Your task to perform on an android device: check out phone information Image 0: 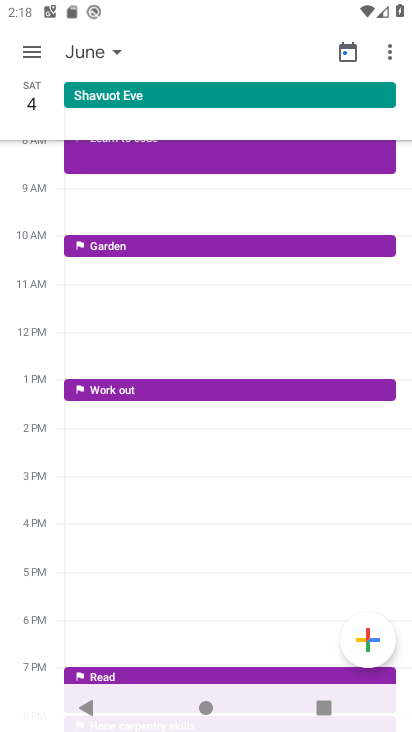
Step 0: press home button
Your task to perform on an android device: check out phone information Image 1: 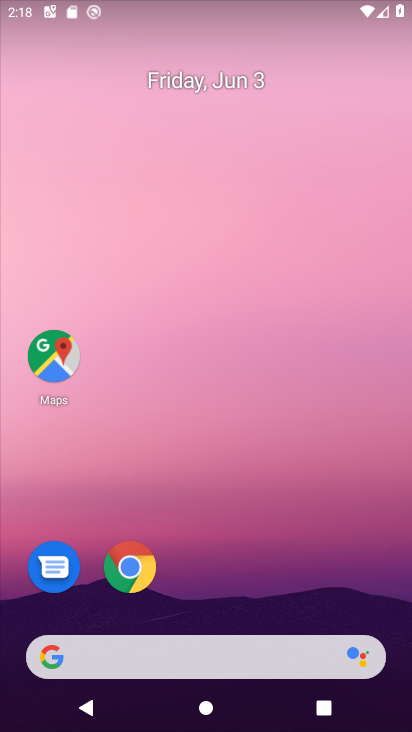
Step 1: drag from (206, 538) to (221, 222)
Your task to perform on an android device: check out phone information Image 2: 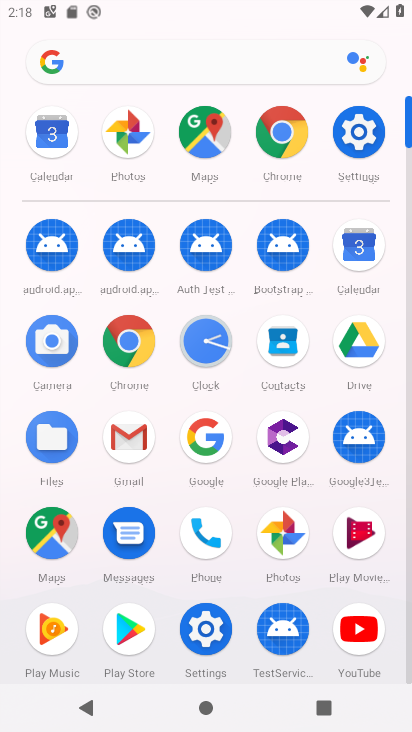
Step 2: click (349, 128)
Your task to perform on an android device: check out phone information Image 3: 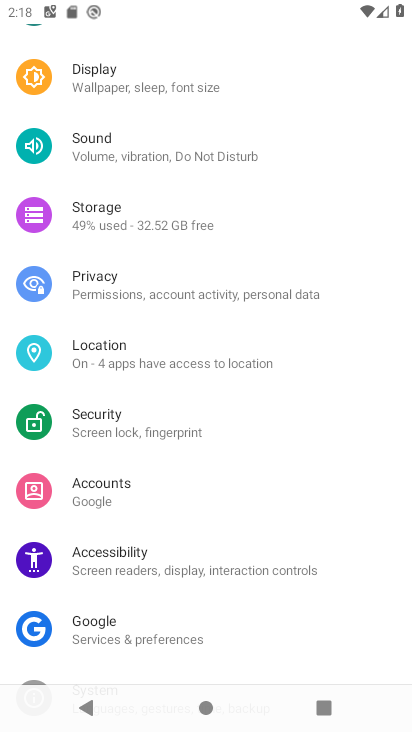
Step 3: drag from (181, 609) to (198, 232)
Your task to perform on an android device: check out phone information Image 4: 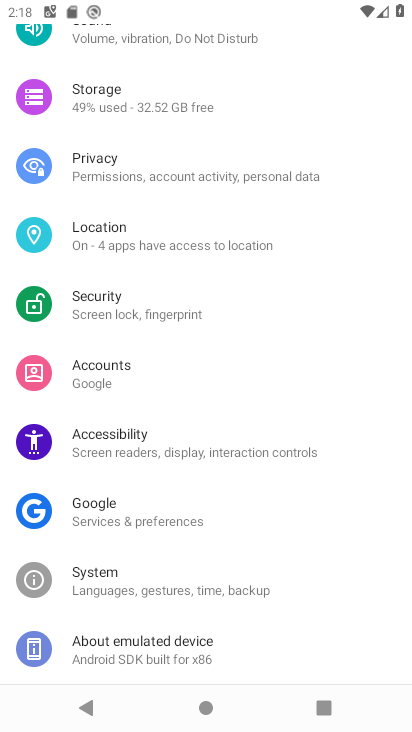
Step 4: click (136, 644)
Your task to perform on an android device: check out phone information Image 5: 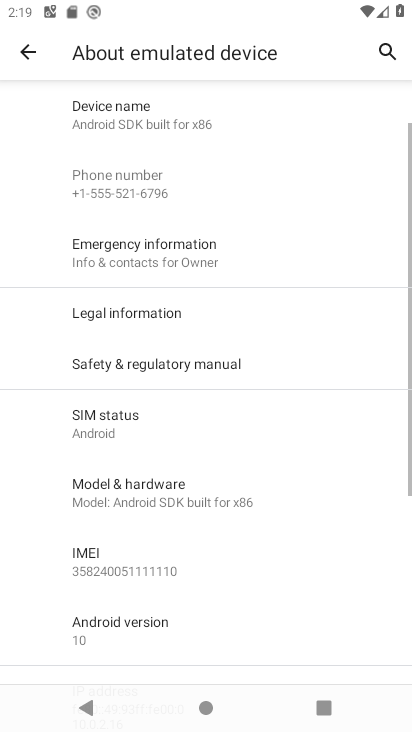
Step 5: task complete